Your task to perform on an android device: toggle improve location accuracy Image 0: 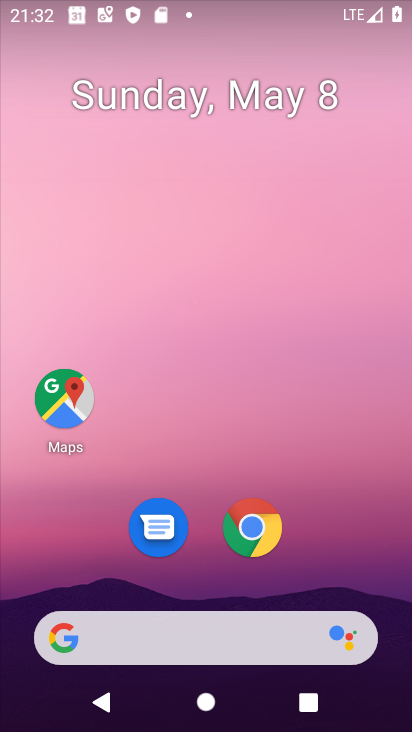
Step 0: drag from (211, 568) to (278, 71)
Your task to perform on an android device: toggle improve location accuracy Image 1: 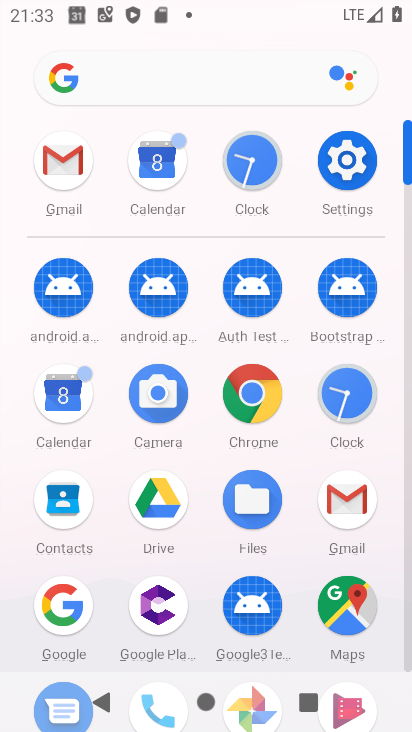
Step 1: click (341, 161)
Your task to perform on an android device: toggle improve location accuracy Image 2: 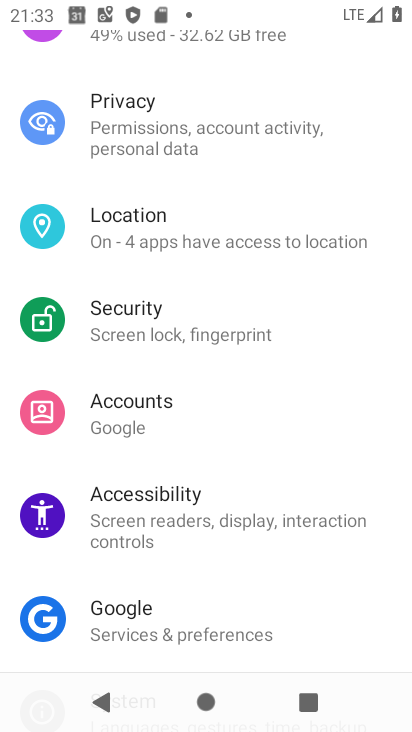
Step 2: click (159, 242)
Your task to perform on an android device: toggle improve location accuracy Image 3: 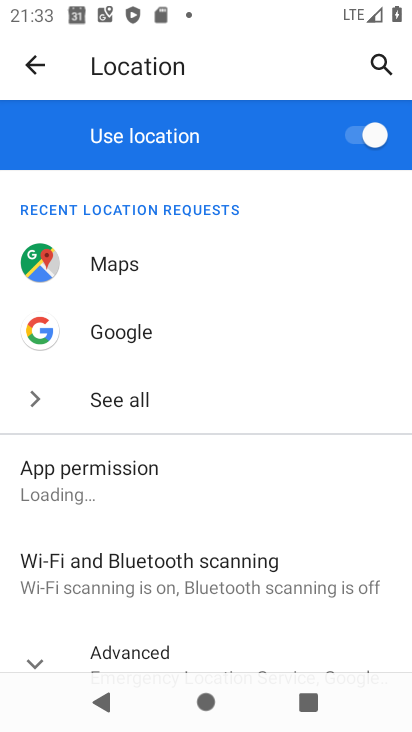
Step 3: drag from (220, 601) to (225, 278)
Your task to perform on an android device: toggle improve location accuracy Image 4: 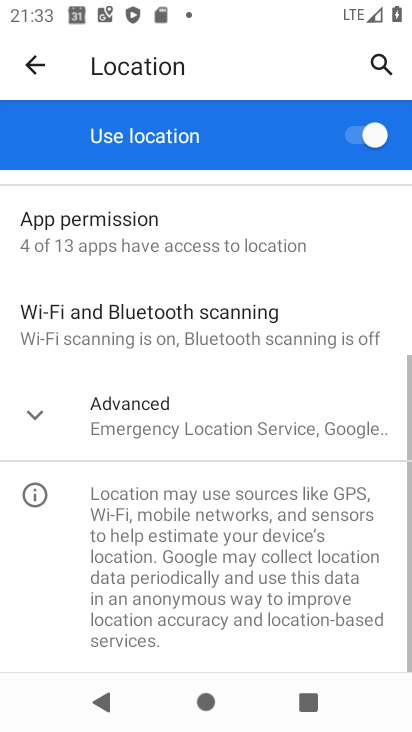
Step 4: click (118, 415)
Your task to perform on an android device: toggle improve location accuracy Image 5: 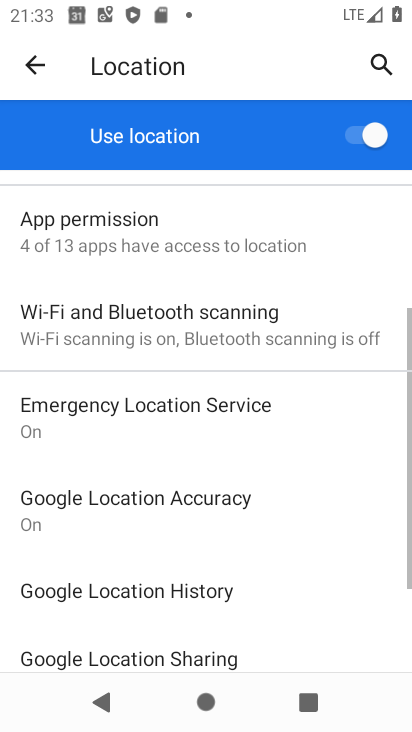
Step 5: drag from (194, 534) to (174, 216)
Your task to perform on an android device: toggle improve location accuracy Image 6: 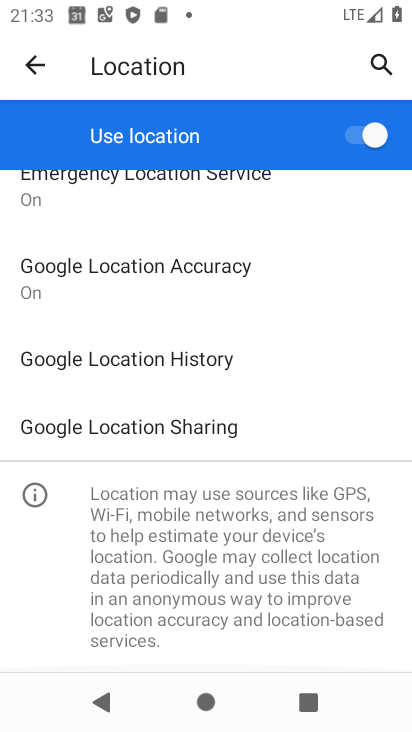
Step 6: click (201, 267)
Your task to perform on an android device: toggle improve location accuracy Image 7: 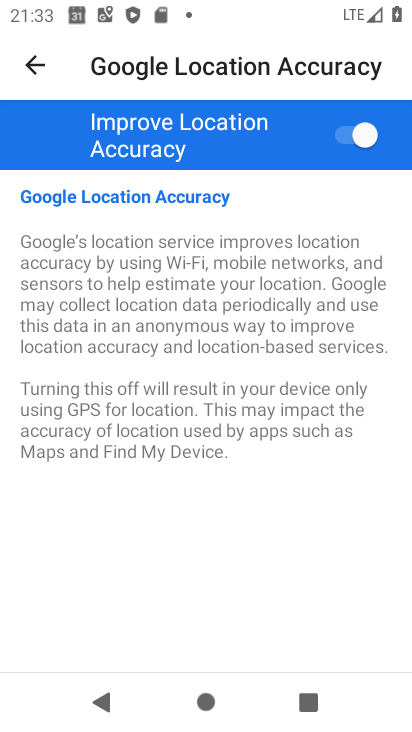
Step 7: click (360, 127)
Your task to perform on an android device: toggle improve location accuracy Image 8: 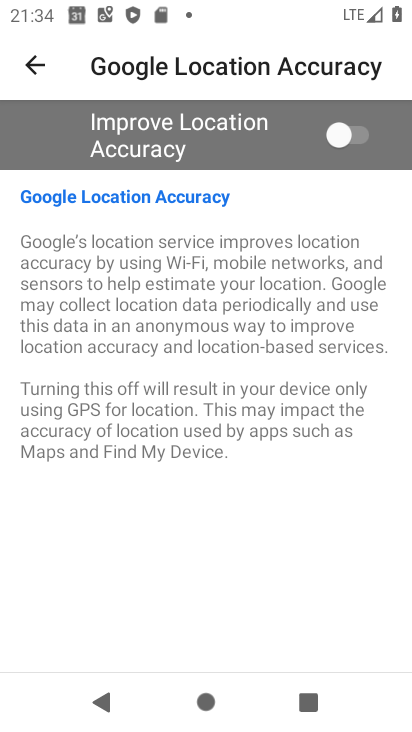
Step 8: task complete